Your task to perform on an android device: turn off sleep mode Image 0: 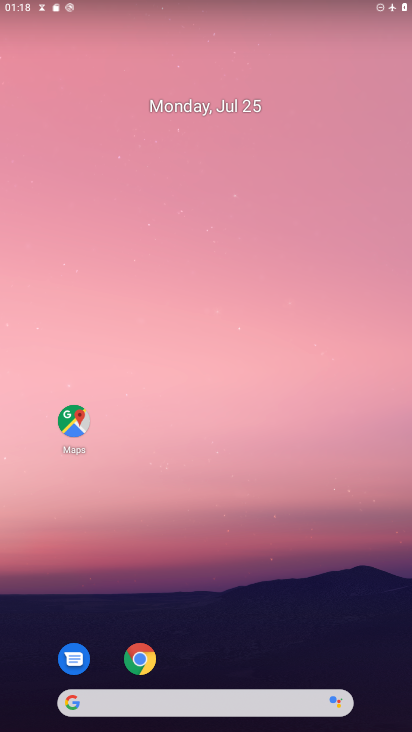
Step 0: drag from (343, 662) to (328, 153)
Your task to perform on an android device: turn off sleep mode Image 1: 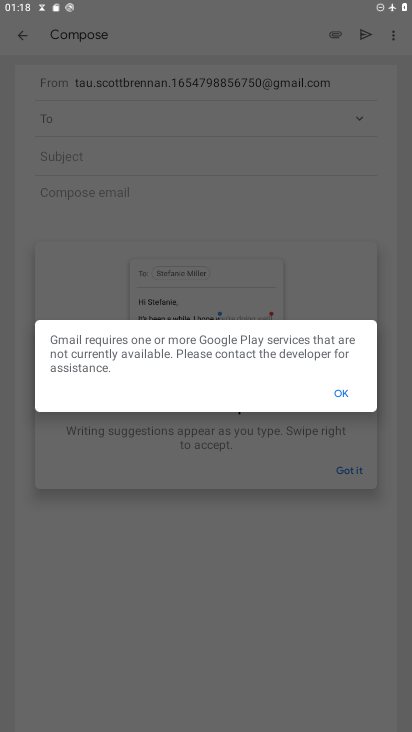
Step 1: press home button
Your task to perform on an android device: turn off sleep mode Image 2: 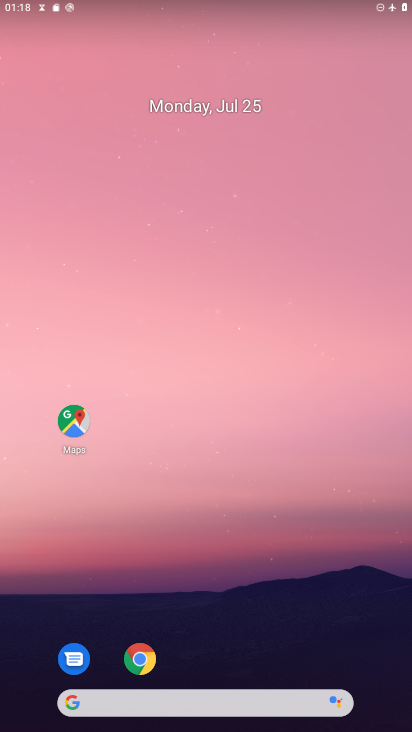
Step 2: drag from (245, 665) to (253, 225)
Your task to perform on an android device: turn off sleep mode Image 3: 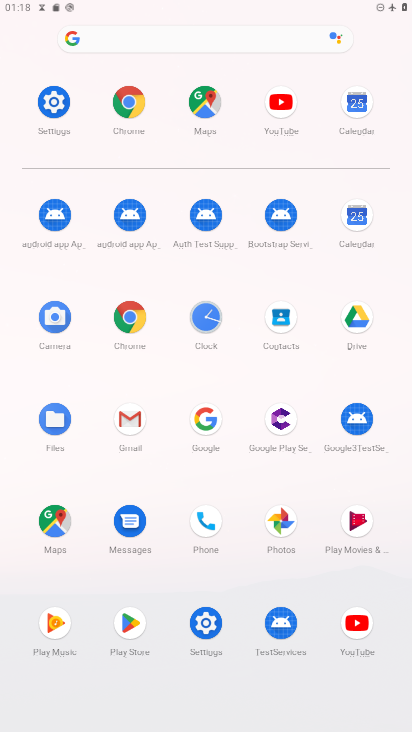
Step 3: click (38, 84)
Your task to perform on an android device: turn off sleep mode Image 4: 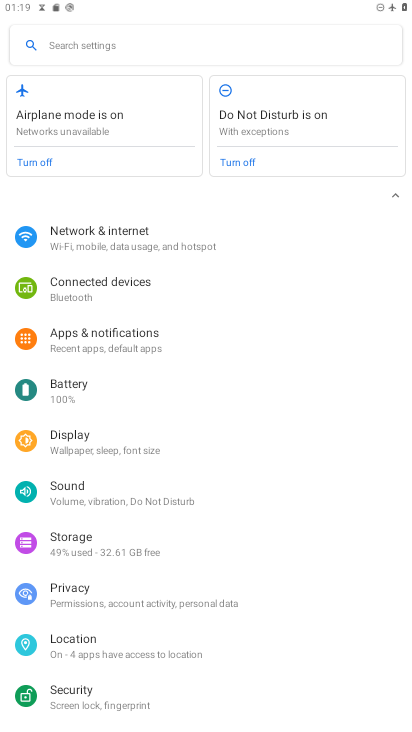
Step 4: task complete